Your task to perform on an android device: turn on javascript in the chrome app Image 0: 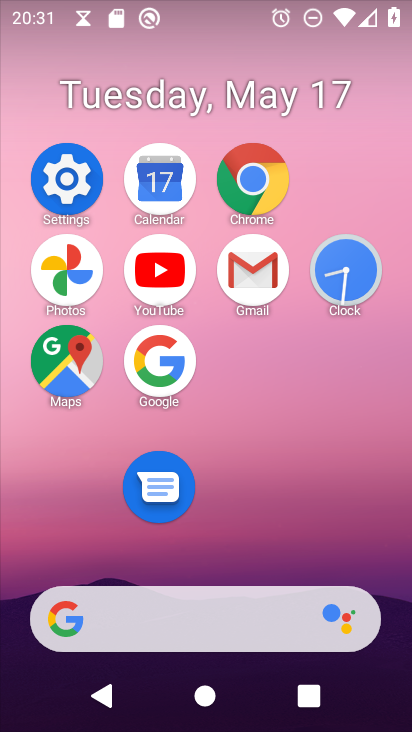
Step 0: click (239, 174)
Your task to perform on an android device: turn on javascript in the chrome app Image 1: 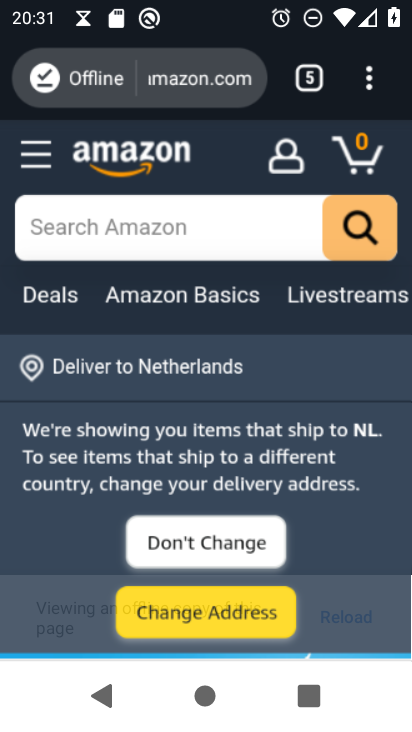
Step 1: click (374, 76)
Your task to perform on an android device: turn on javascript in the chrome app Image 2: 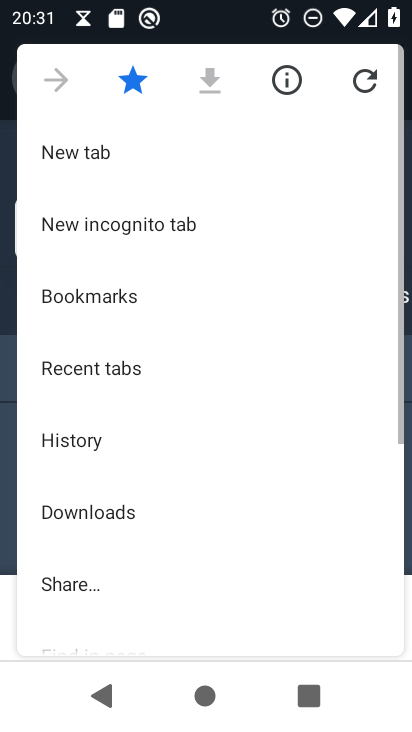
Step 2: drag from (275, 503) to (286, 177)
Your task to perform on an android device: turn on javascript in the chrome app Image 3: 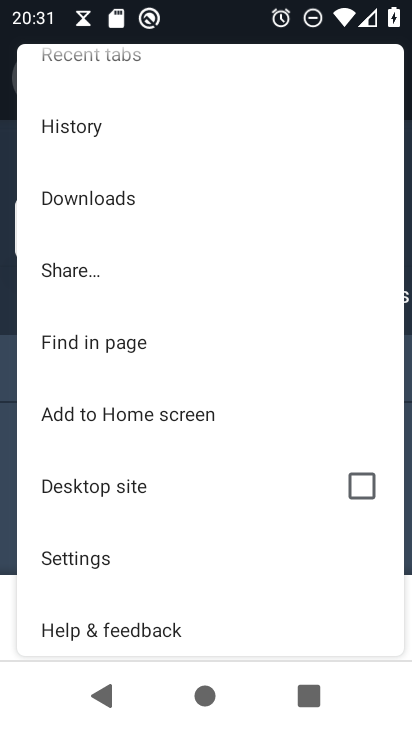
Step 3: click (117, 564)
Your task to perform on an android device: turn on javascript in the chrome app Image 4: 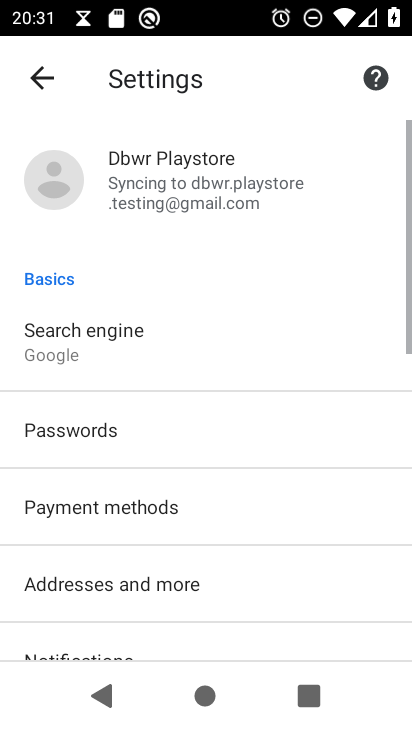
Step 4: drag from (116, 563) to (119, 182)
Your task to perform on an android device: turn on javascript in the chrome app Image 5: 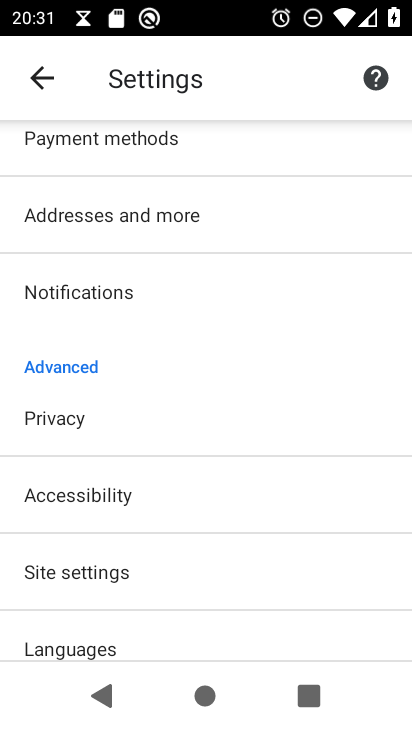
Step 5: click (98, 569)
Your task to perform on an android device: turn on javascript in the chrome app Image 6: 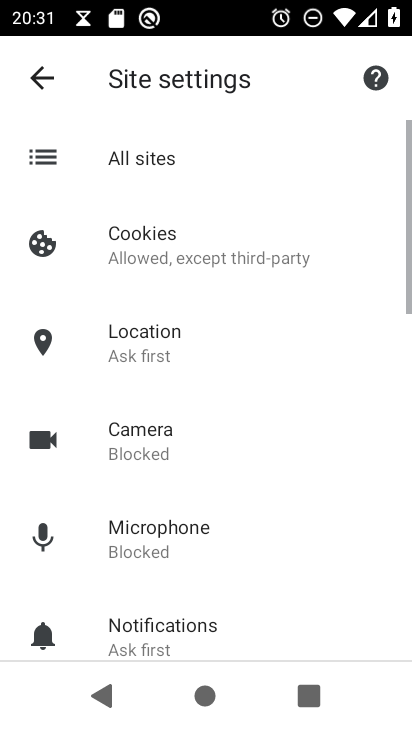
Step 6: drag from (98, 569) to (100, 173)
Your task to perform on an android device: turn on javascript in the chrome app Image 7: 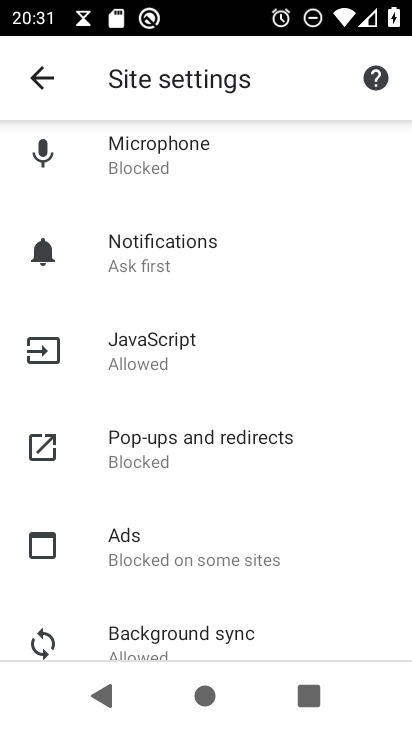
Step 7: click (154, 348)
Your task to perform on an android device: turn on javascript in the chrome app Image 8: 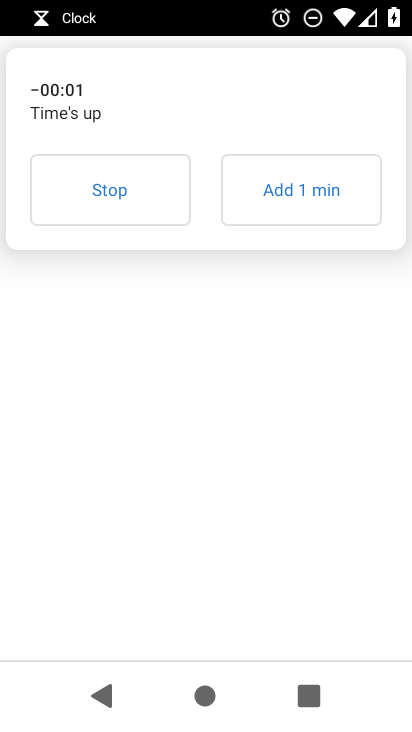
Step 8: task complete